Your task to perform on an android device: toggle location history Image 0: 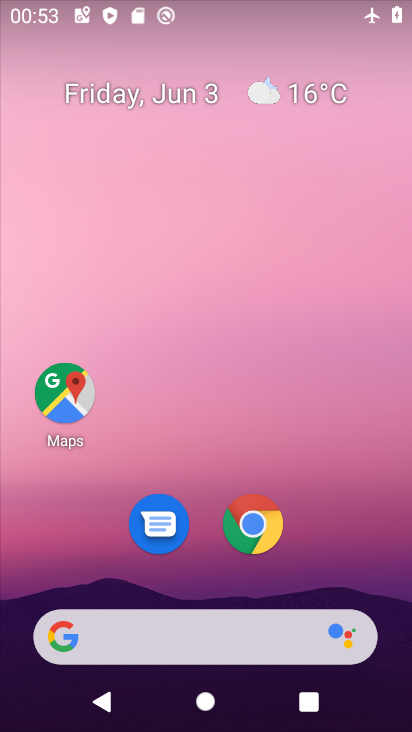
Step 0: drag from (309, 550) to (322, 13)
Your task to perform on an android device: toggle location history Image 1: 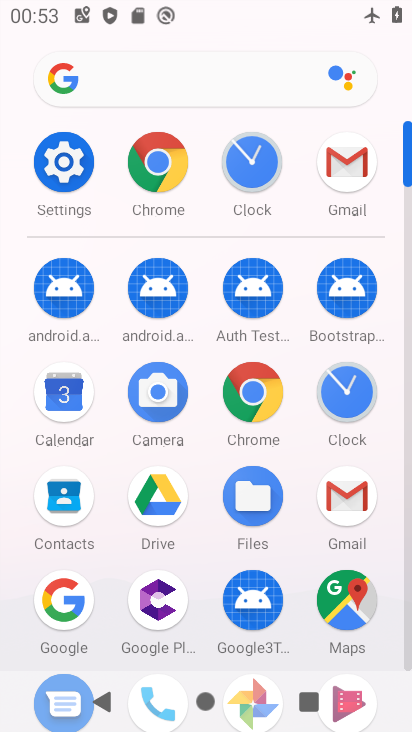
Step 1: click (54, 155)
Your task to perform on an android device: toggle location history Image 2: 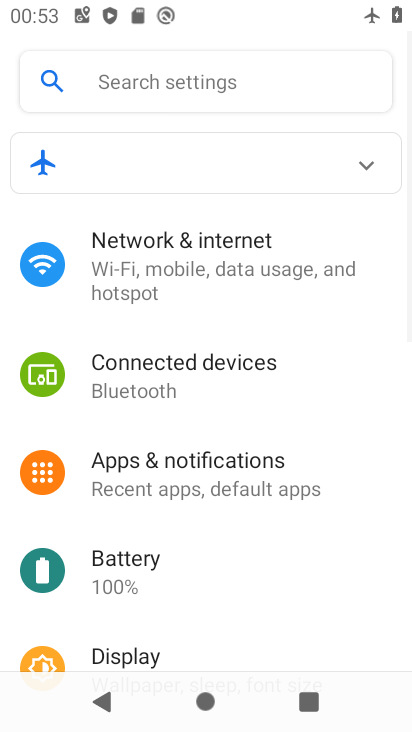
Step 2: drag from (246, 594) to (183, 0)
Your task to perform on an android device: toggle location history Image 3: 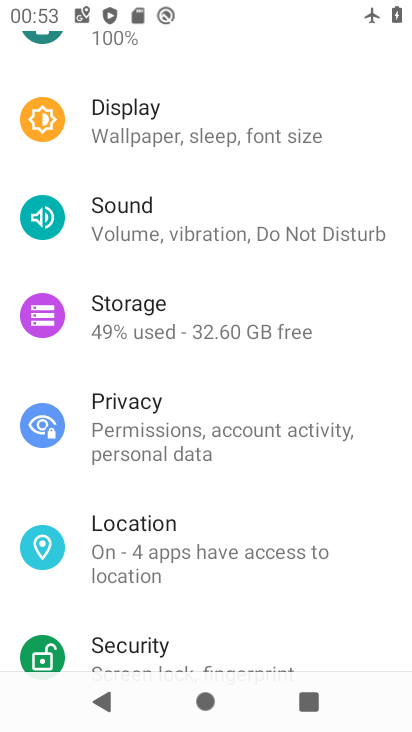
Step 3: click (218, 535)
Your task to perform on an android device: toggle location history Image 4: 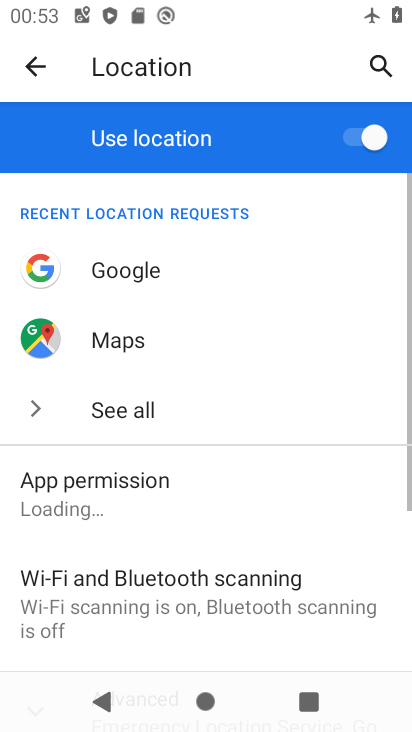
Step 4: drag from (263, 532) to (226, 70)
Your task to perform on an android device: toggle location history Image 5: 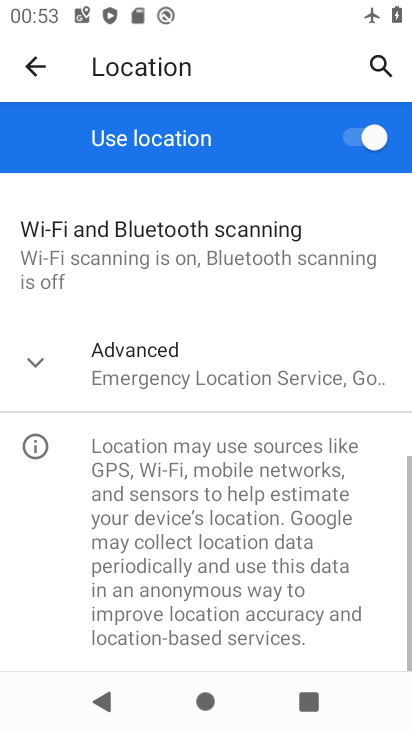
Step 5: click (33, 350)
Your task to perform on an android device: toggle location history Image 6: 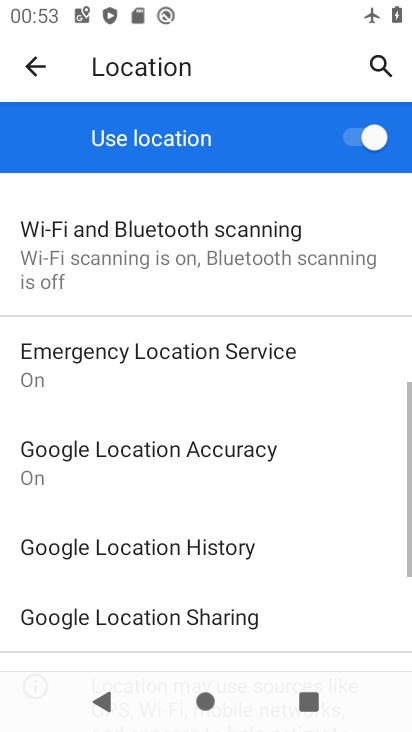
Step 6: drag from (257, 552) to (263, 390)
Your task to perform on an android device: toggle location history Image 7: 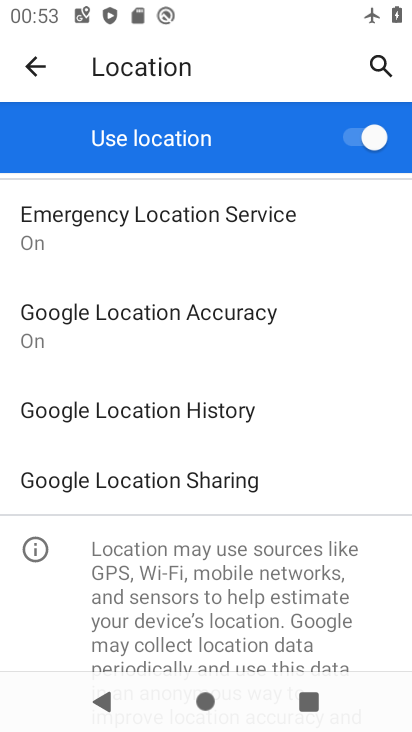
Step 7: click (242, 413)
Your task to perform on an android device: toggle location history Image 8: 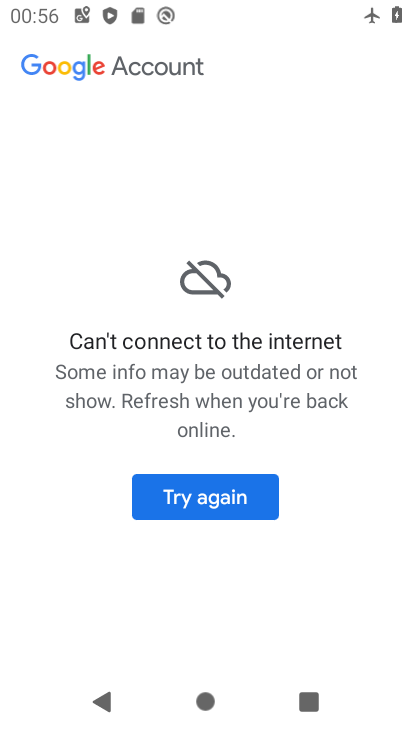
Step 8: task complete